Your task to perform on an android device: Search for usb-c to usb-a on newegg, select the first entry, add it to the cart, then select checkout. Image 0: 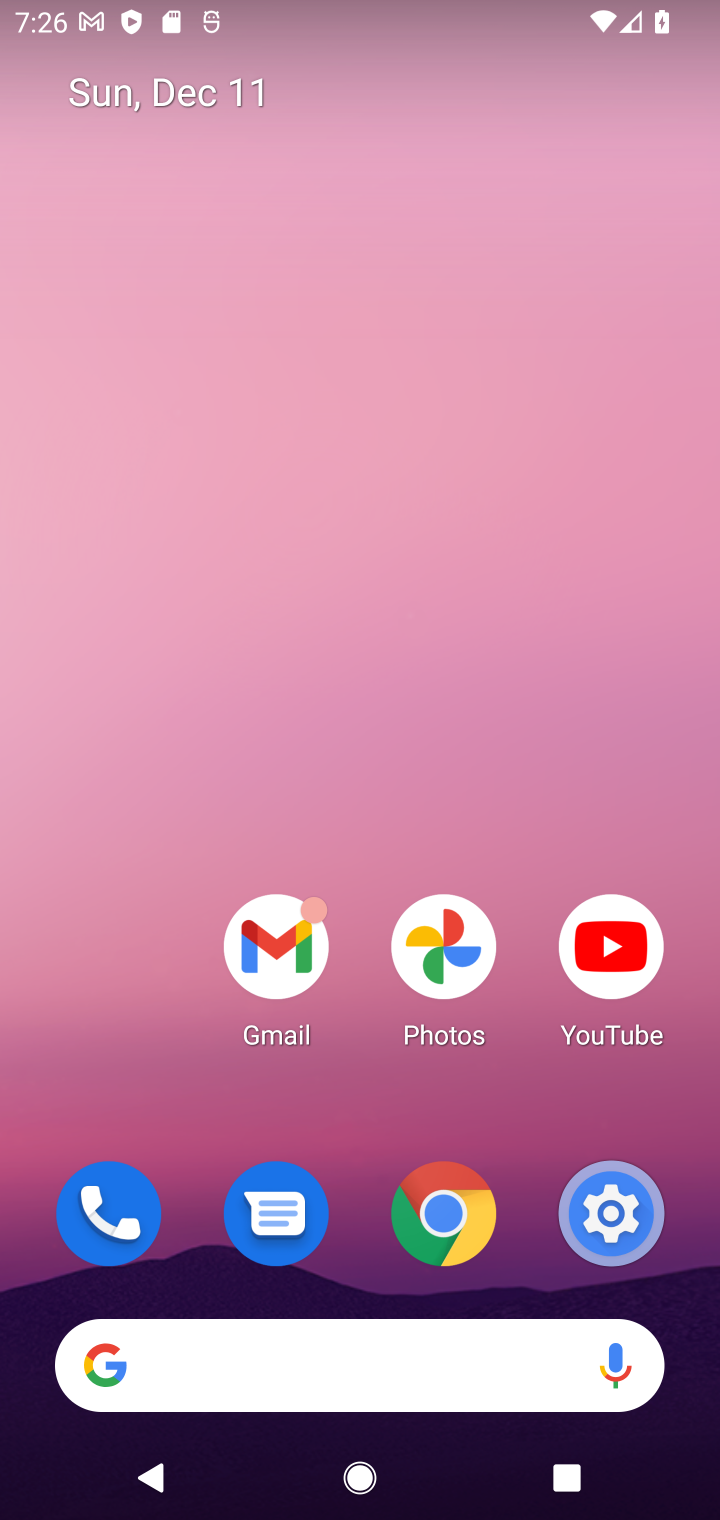
Step 0: click (369, 1384)
Your task to perform on an android device: Search for usb-c to usb-a on newegg, select the first entry, add it to the cart, then select checkout. Image 1: 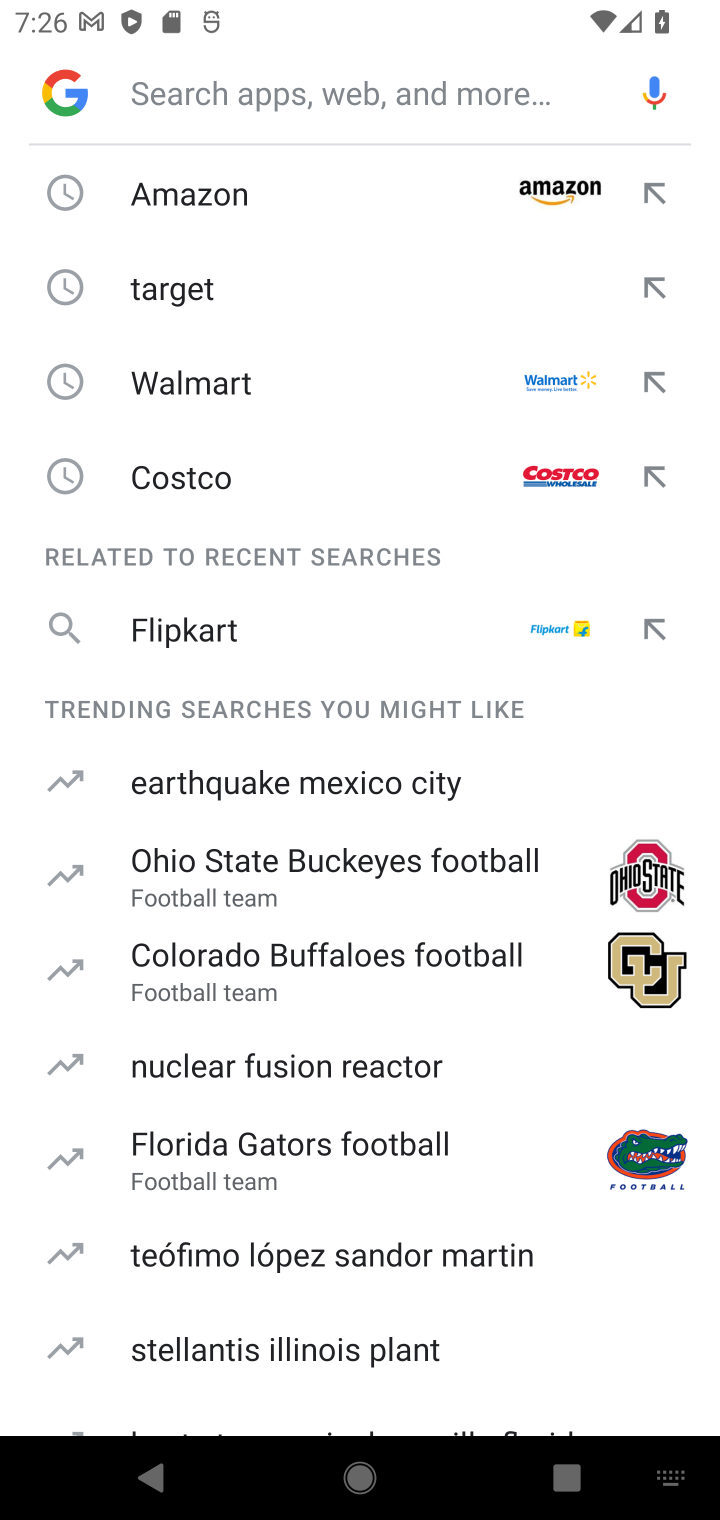
Step 1: type "newegg"
Your task to perform on an android device: Search for usb-c to usb-a on newegg, select the first entry, add it to the cart, then select checkout. Image 2: 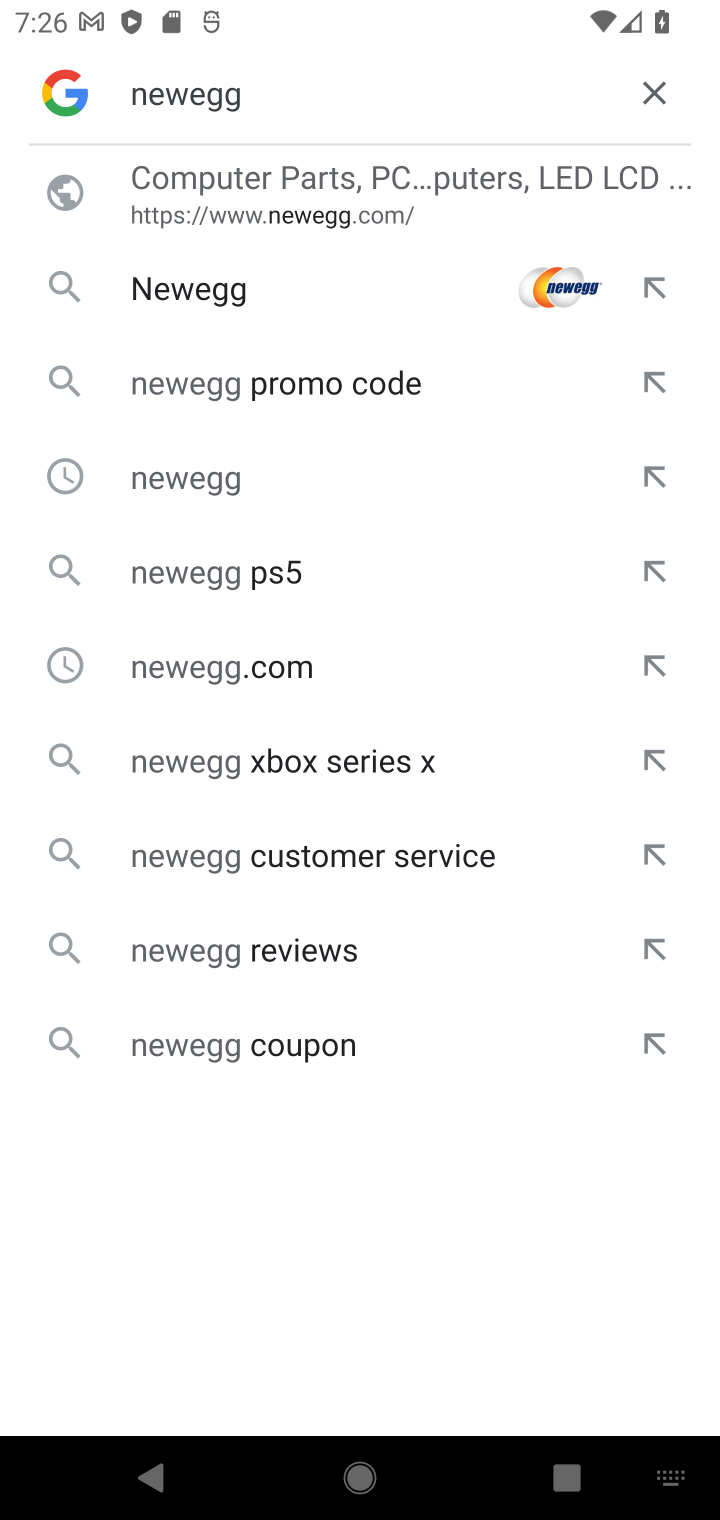
Step 2: click (358, 210)
Your task to perform on an android device: Search for usb-c to usb-a on newegg, select the first entry, add it to the cart, then select checkout. Image 3: 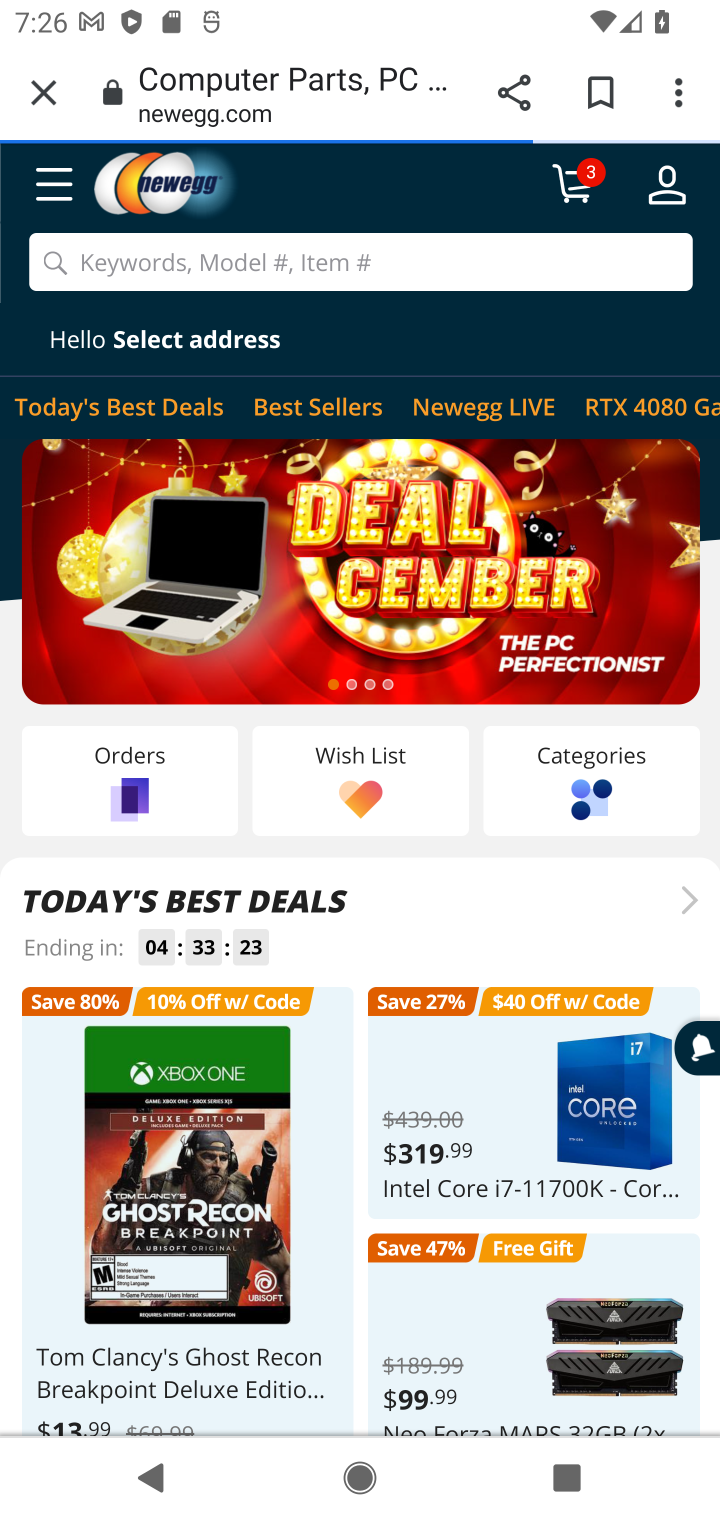
Step 3: click (228, 277)
Your task to perform on an android device: Search for usb-c to usb-a on newegg, select the first entry, add it to the cart, then select checkout. Image 4: 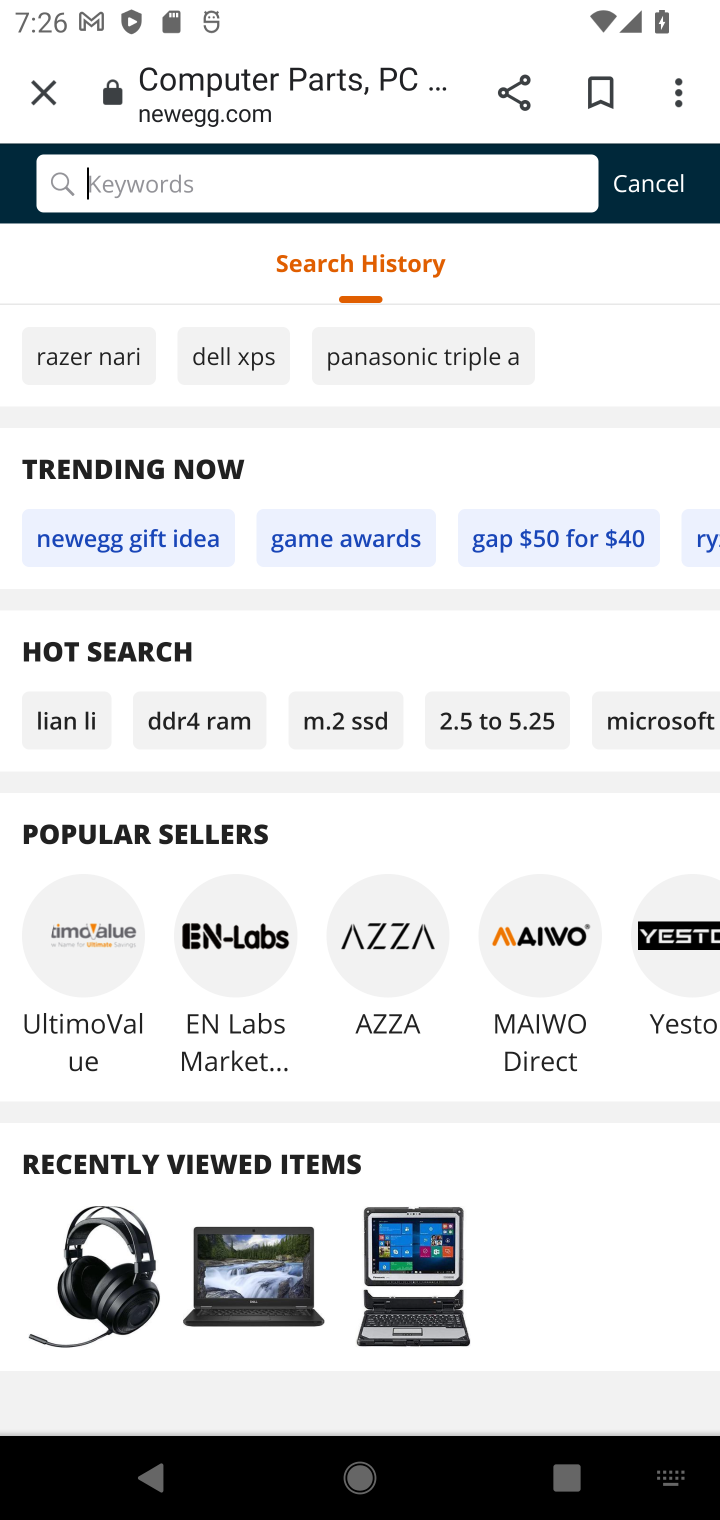
Step 4: type "usb-c to usb-a"
Your task to perform on an android device: Search for usb-c to usb-a on newegg, select the first entry, add it to the cart, then select checkout. Image 5: 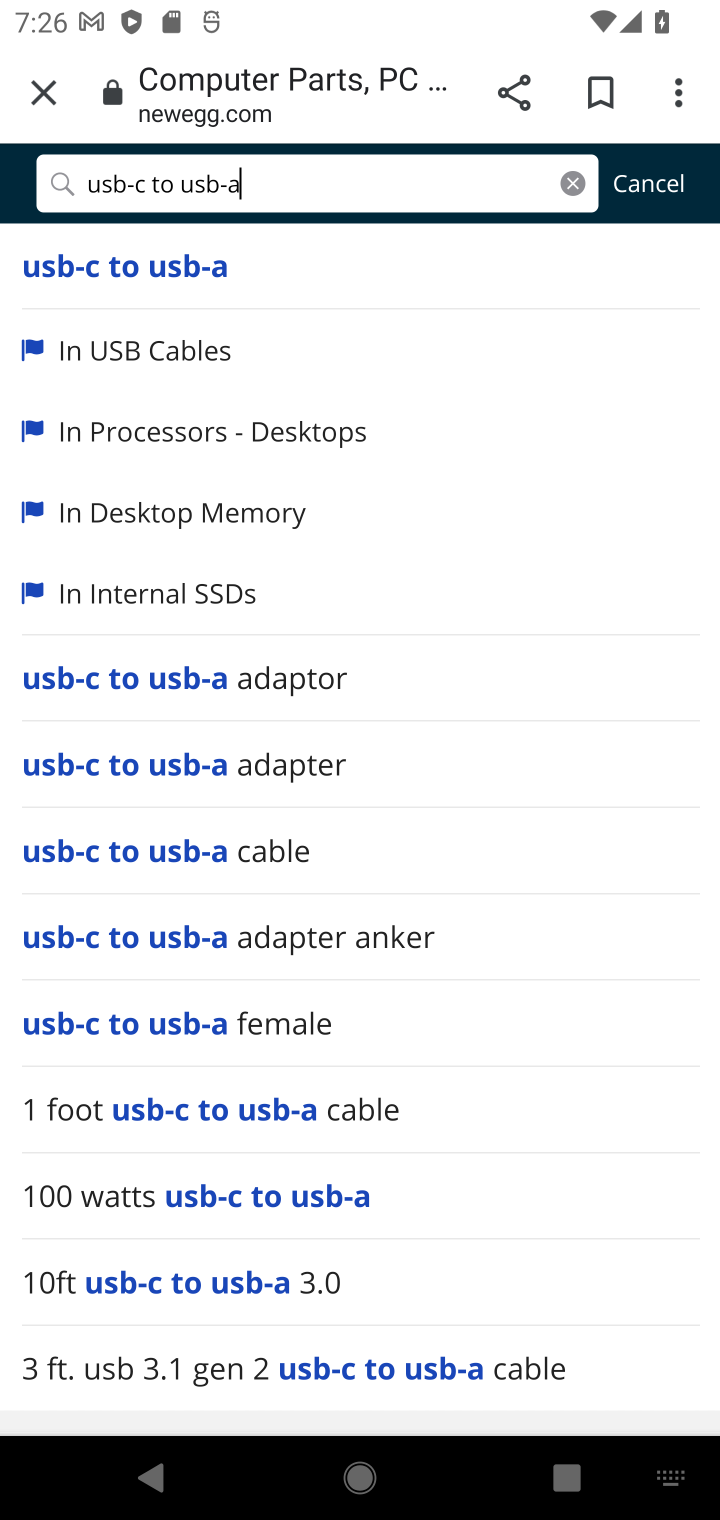
Step 5: click (125, 287)
Your task to perform on an android device: Search for usb-c to usb-a on newegg, select the first entry, add it to the cart, then select checkout. Image 6: 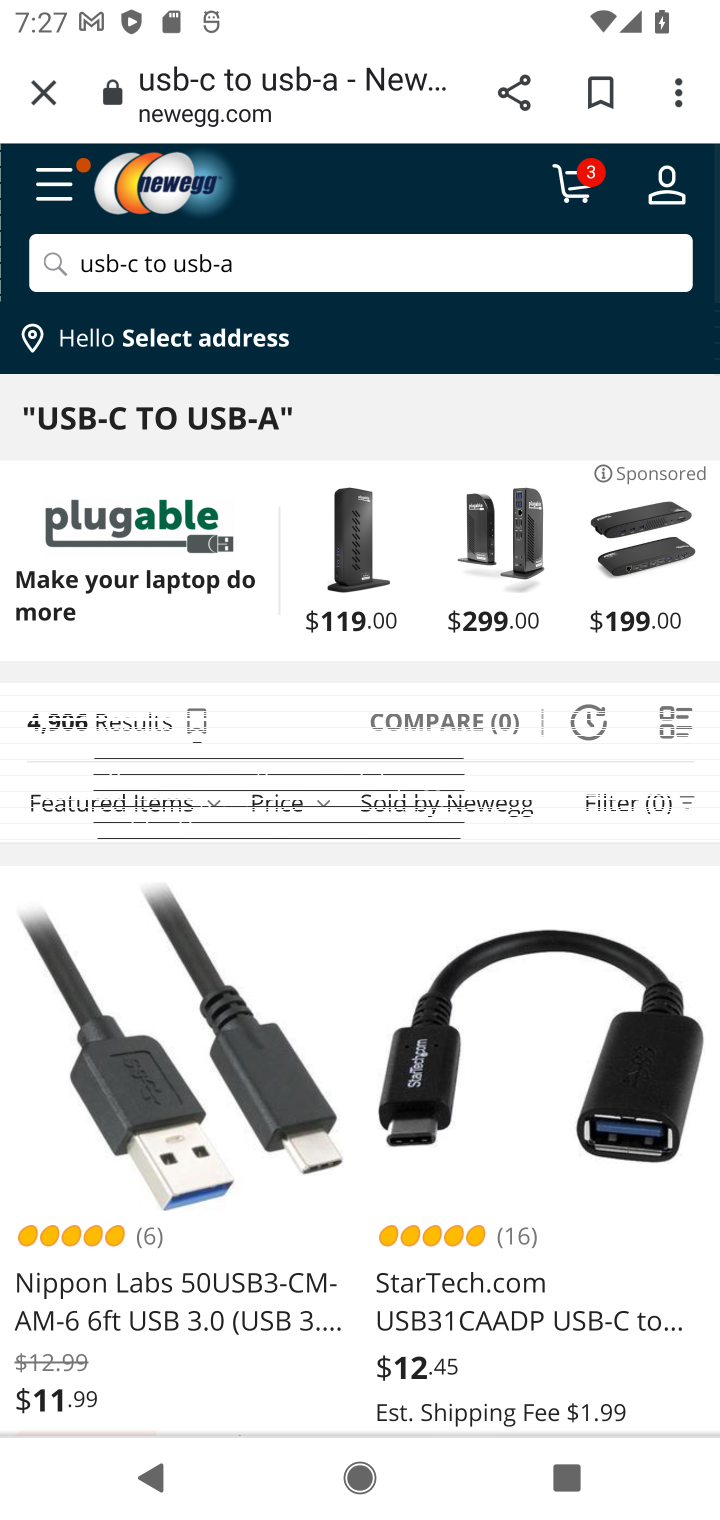
Step 6: click (270, 1081)
Your task to perform on an android device: Search for usb-c to usb-a on newegg, select the first entry, add it to the cart, then select checkout. Image 7: 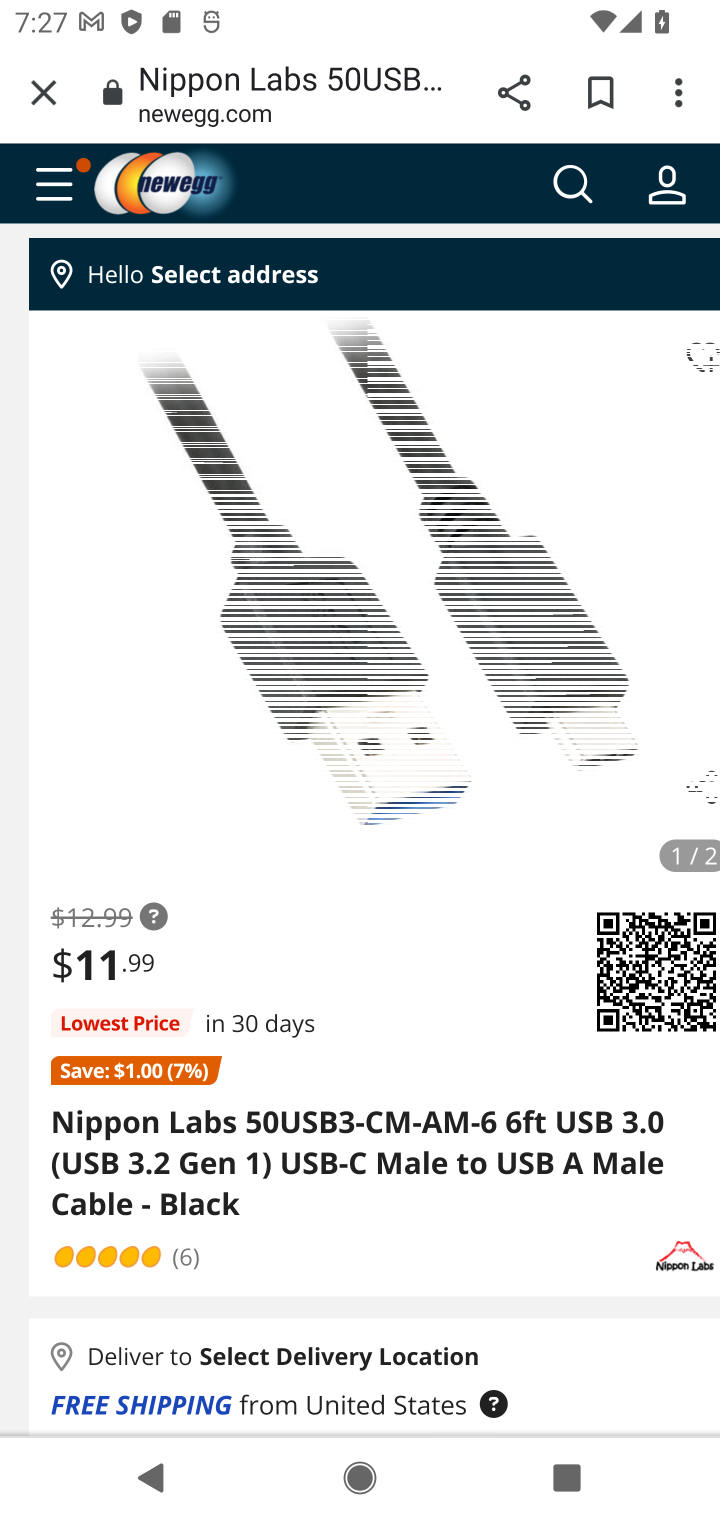
Step 7: drag from (357, 1232) to (291, 444)
Your task to perform on an android device: Search for usb-c to usb-a on newegg, select the first entry, add it to the cart, then select checkout. Image 8: 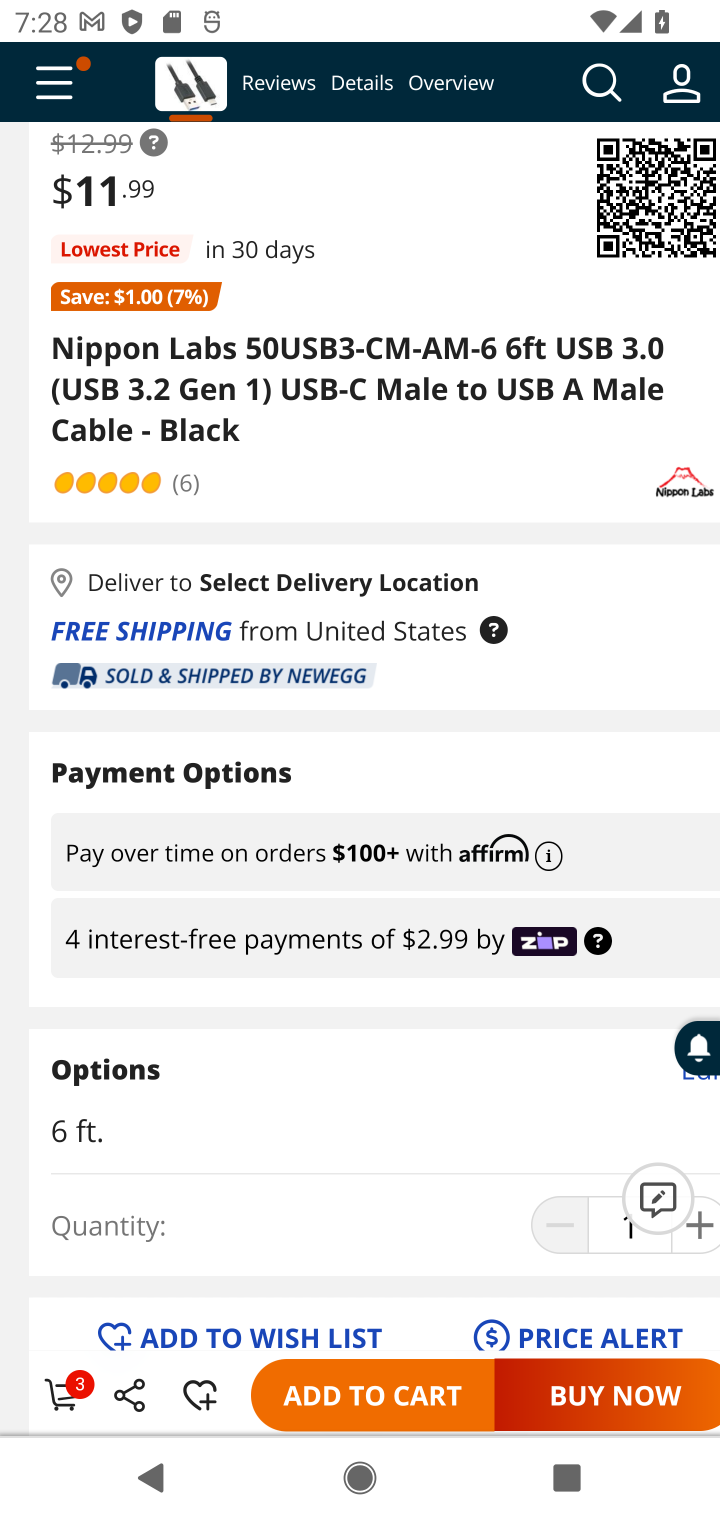
Step 8: click (350, 1385)
Your task to perform on an android device: Search for usb-c to usb-a on newegg, select the first entry, add it to the cart, then select checkout. Image 9: 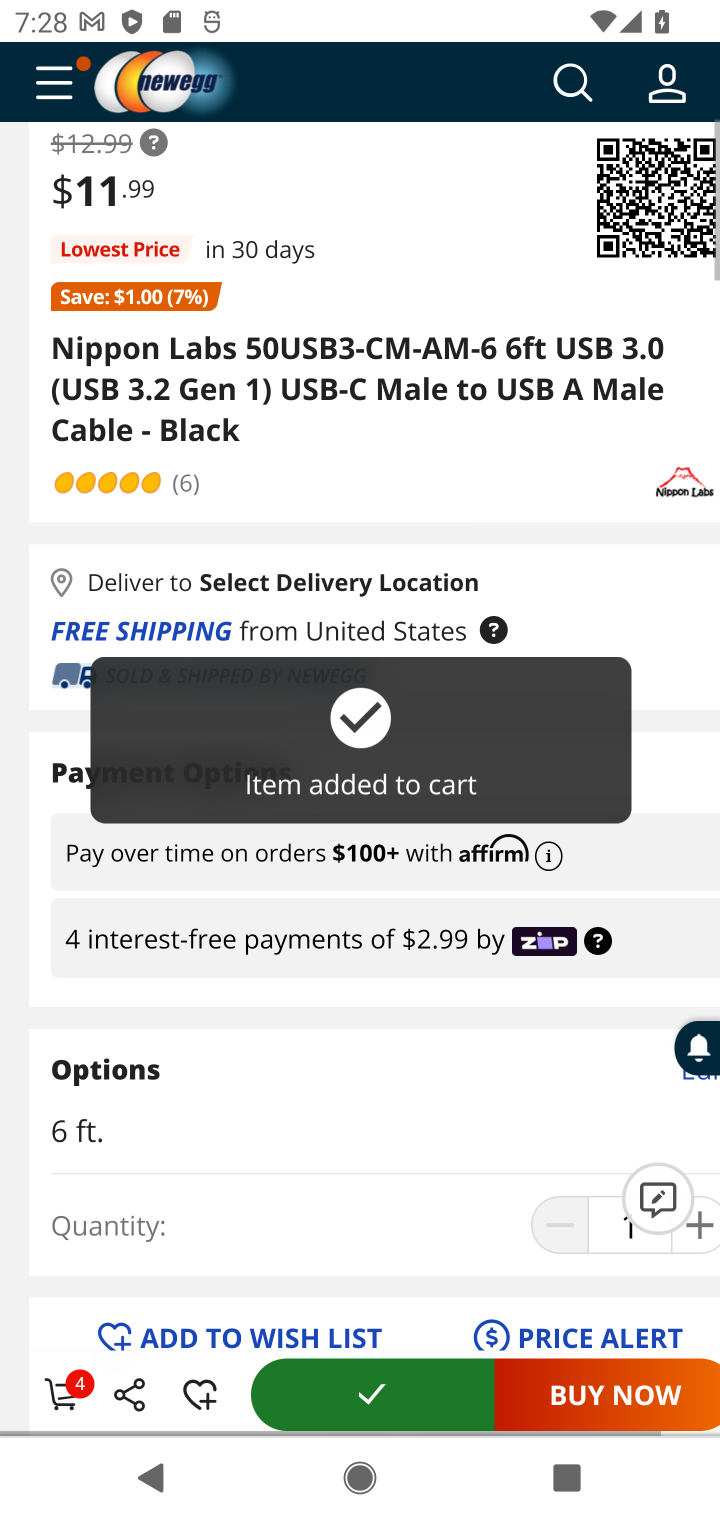
Step 9: task complete